Your task to perform on an android device: Open eBay Image 0: 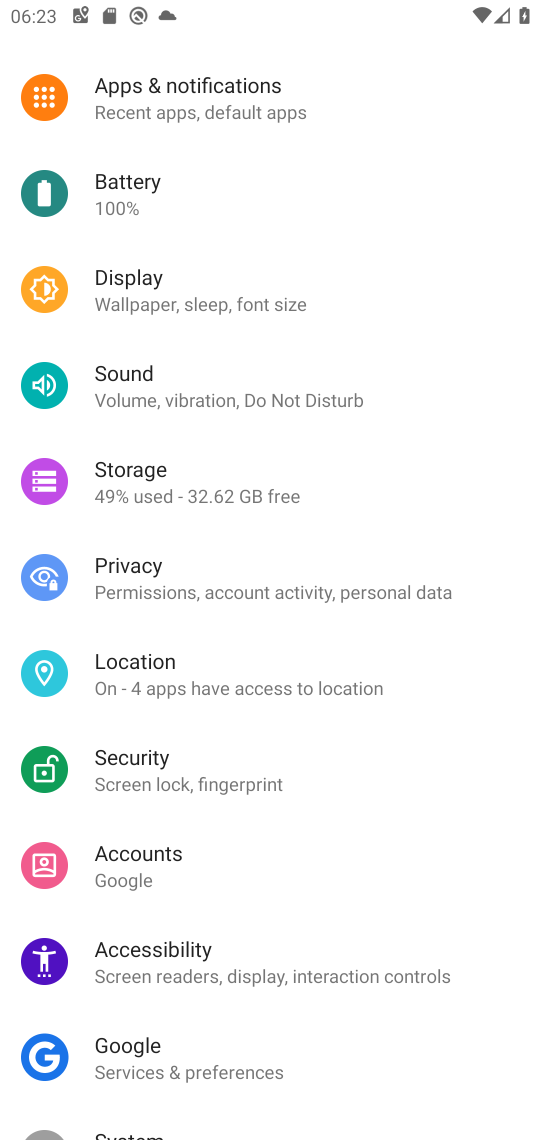
Step 0: press home button
Your task to perform on an android device: Open eBay Image 1: 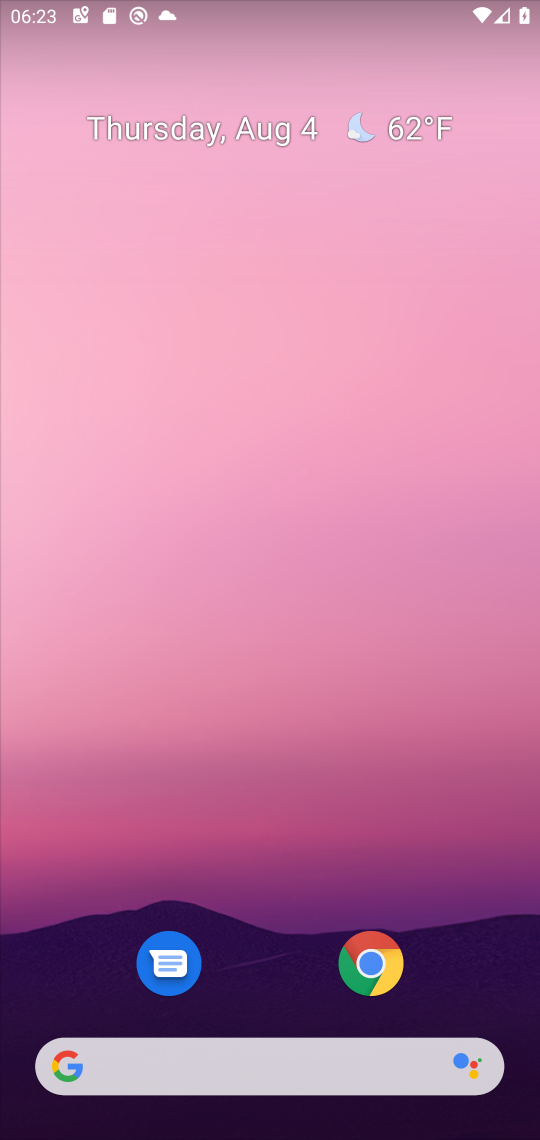
Step 1: click (376, 960)
Your task to perform on an android device: Open eBay Image 2: 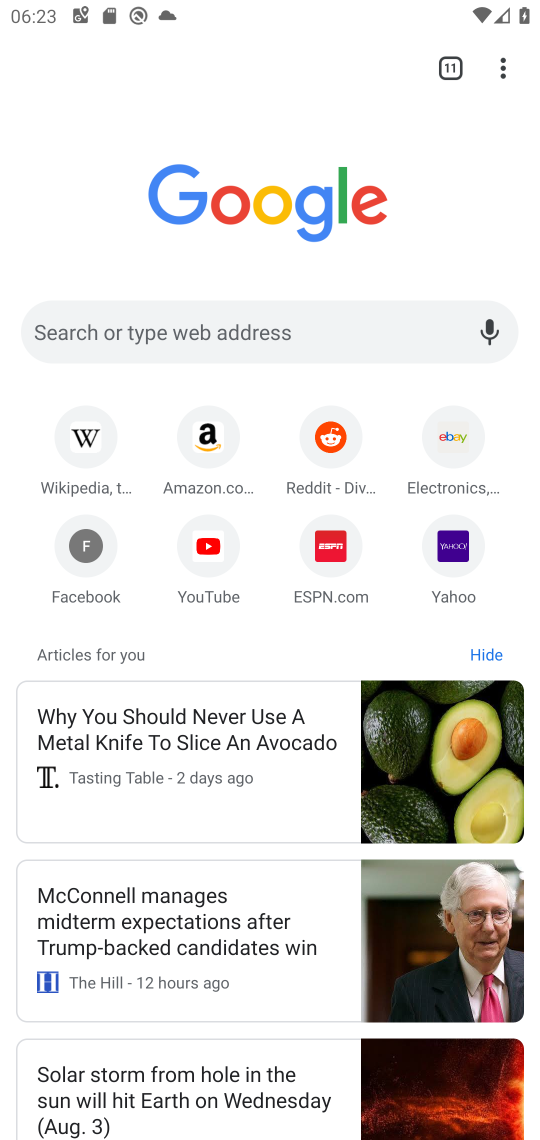
Step 2: click (451, 420)
Your task to perform on an android device: Open eBay Image 3: 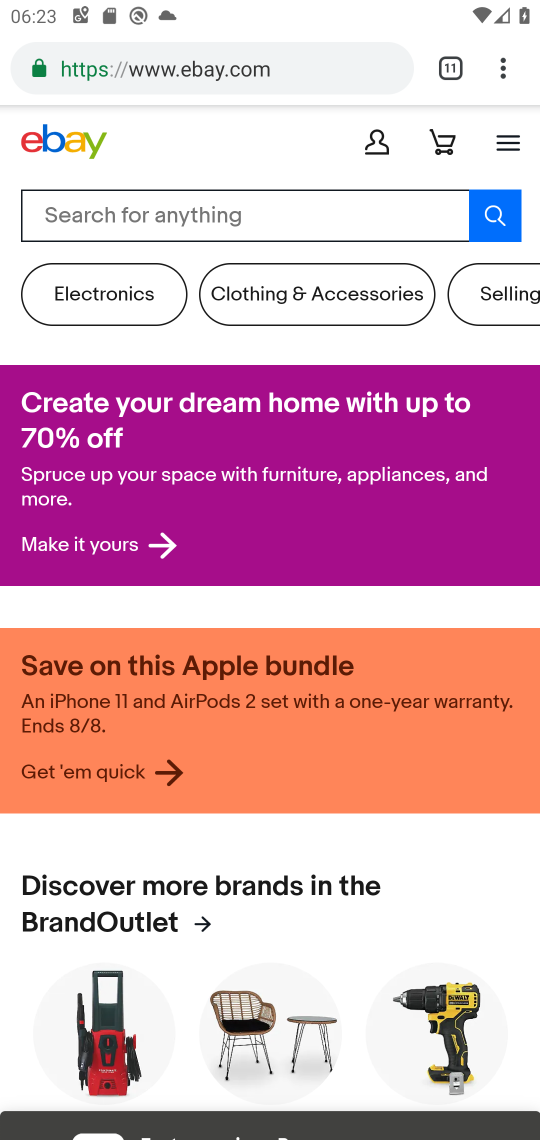
Step 3: task complete